Your task to perform on an android device: How much does the new iPad cost on eBay? Image 0: 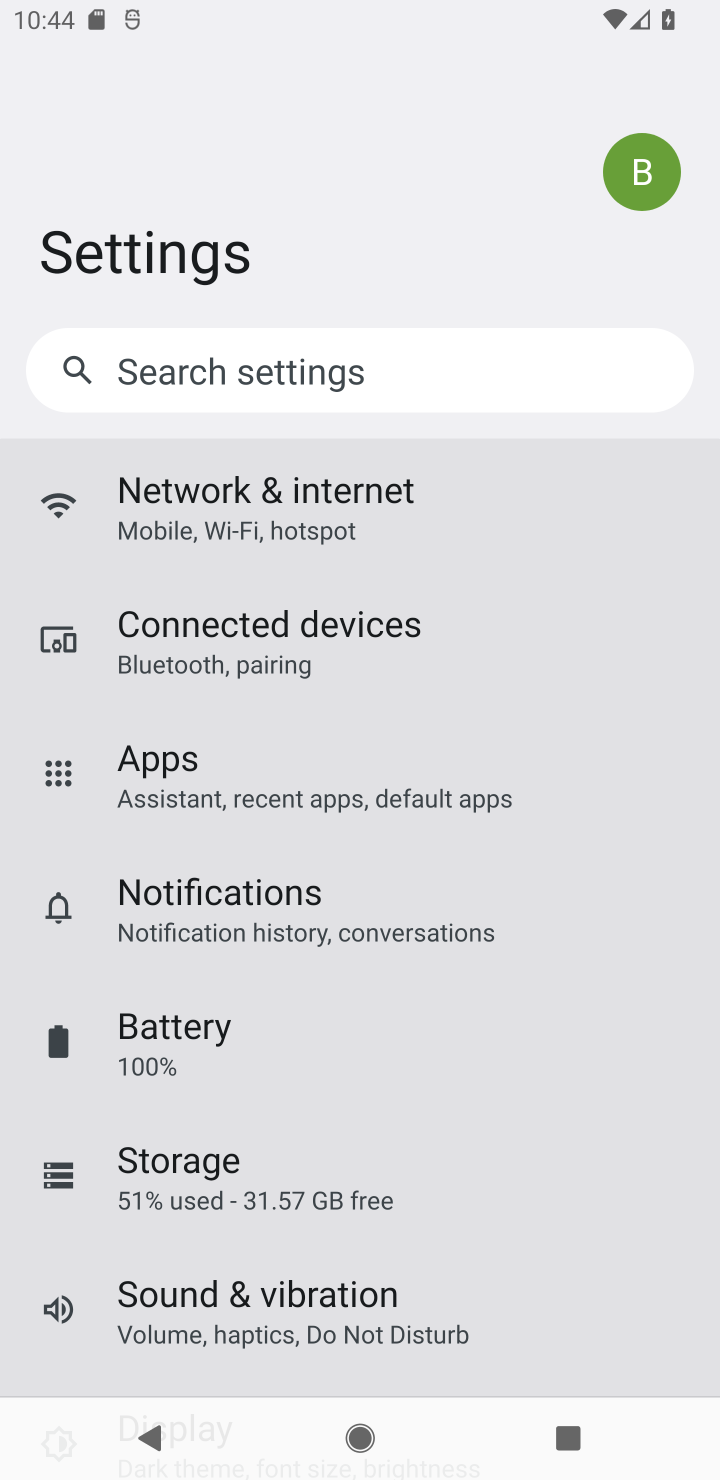
Step 0: press home button
Your task to perform on an android device: How much does the new iPad cost on eBay? Image 1: 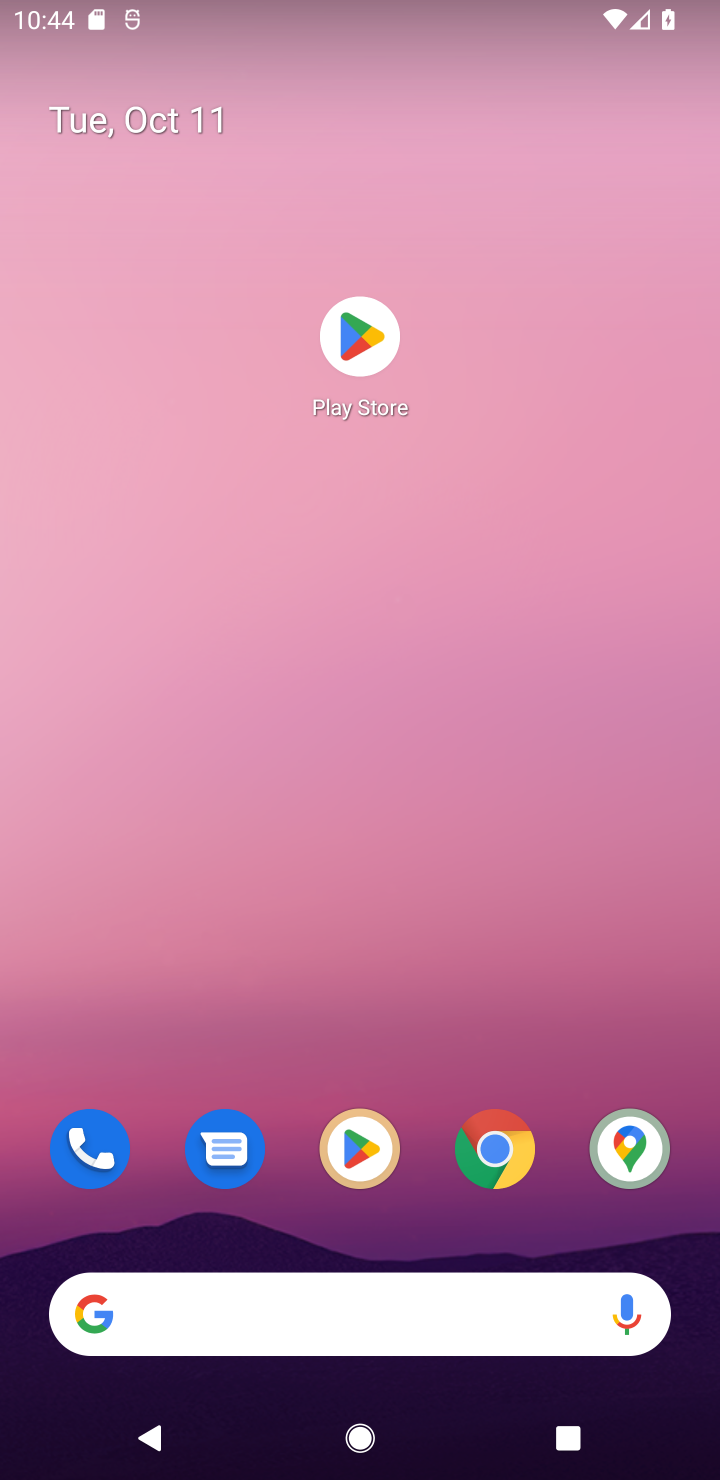
Step 1: drag from (417, 935) to (426, 435)
Your task to perform on an android device: How much does the new iPad cost on eBay? Image 2: 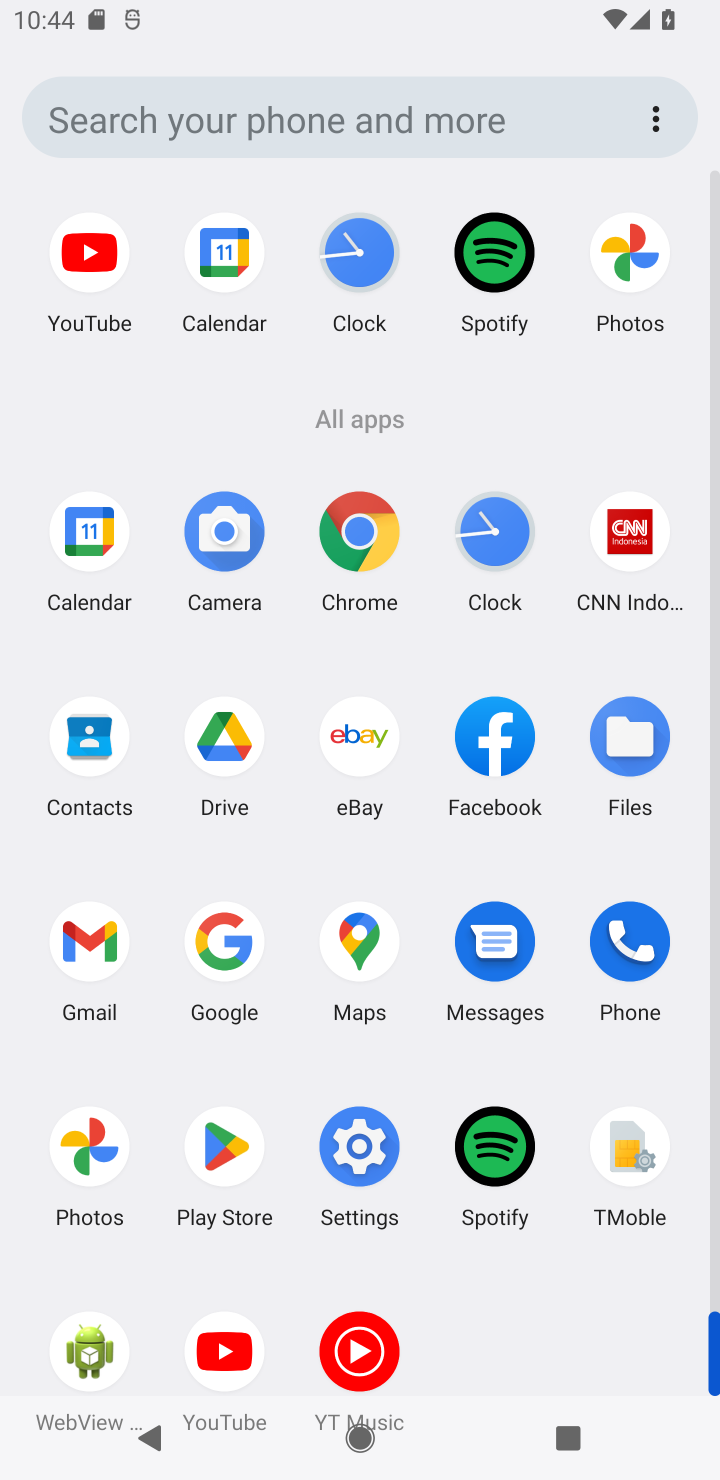
Step 2: click (235, 957)
Your task to perform on an android device: How much does the new iPad cost on eBay? Image 3: 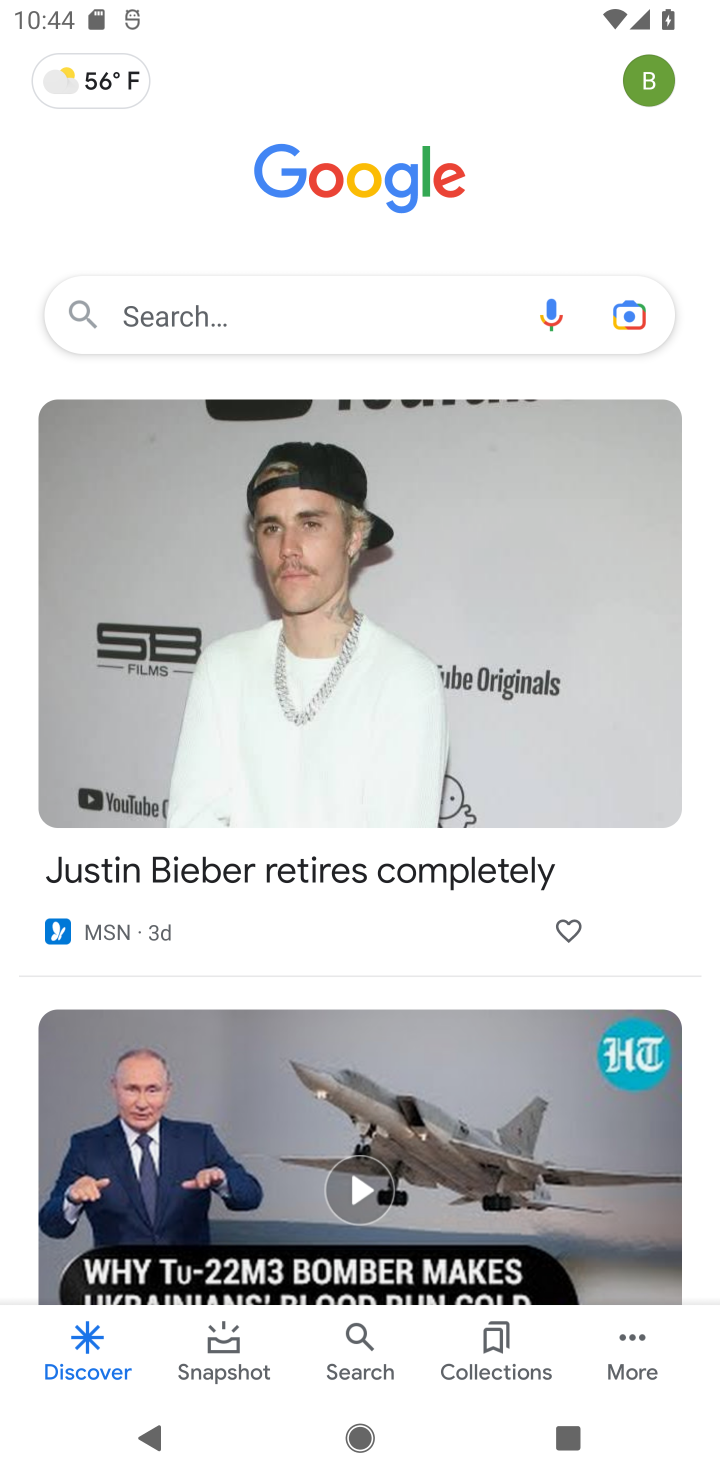
Step 3: click (182, 315)
Your task to perform on an android device: How much does the new iPad cost on eBay? Image 4: 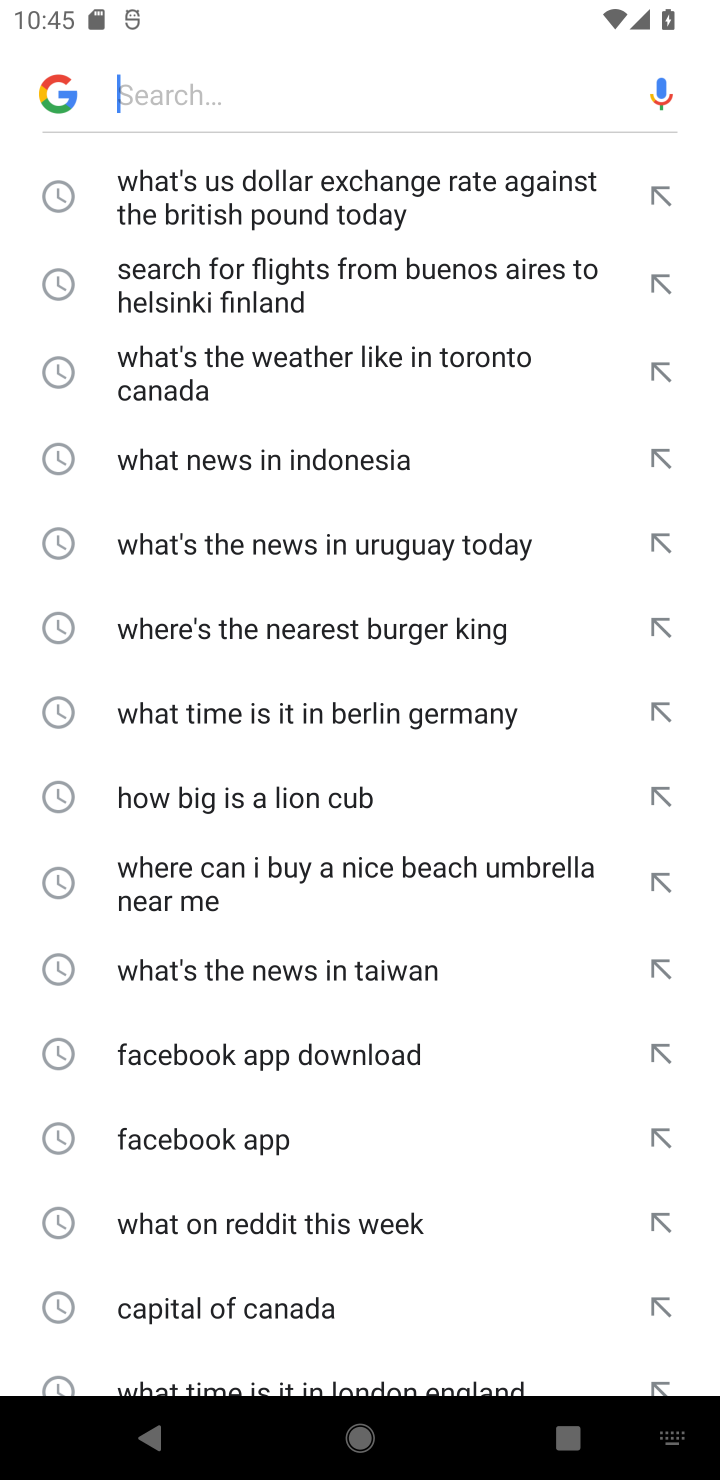
Step 4: type "How much does the new iPad cost on eBay?"
Your task to perform on an android device: How much does the new iPad cost on eBay? Image 5: 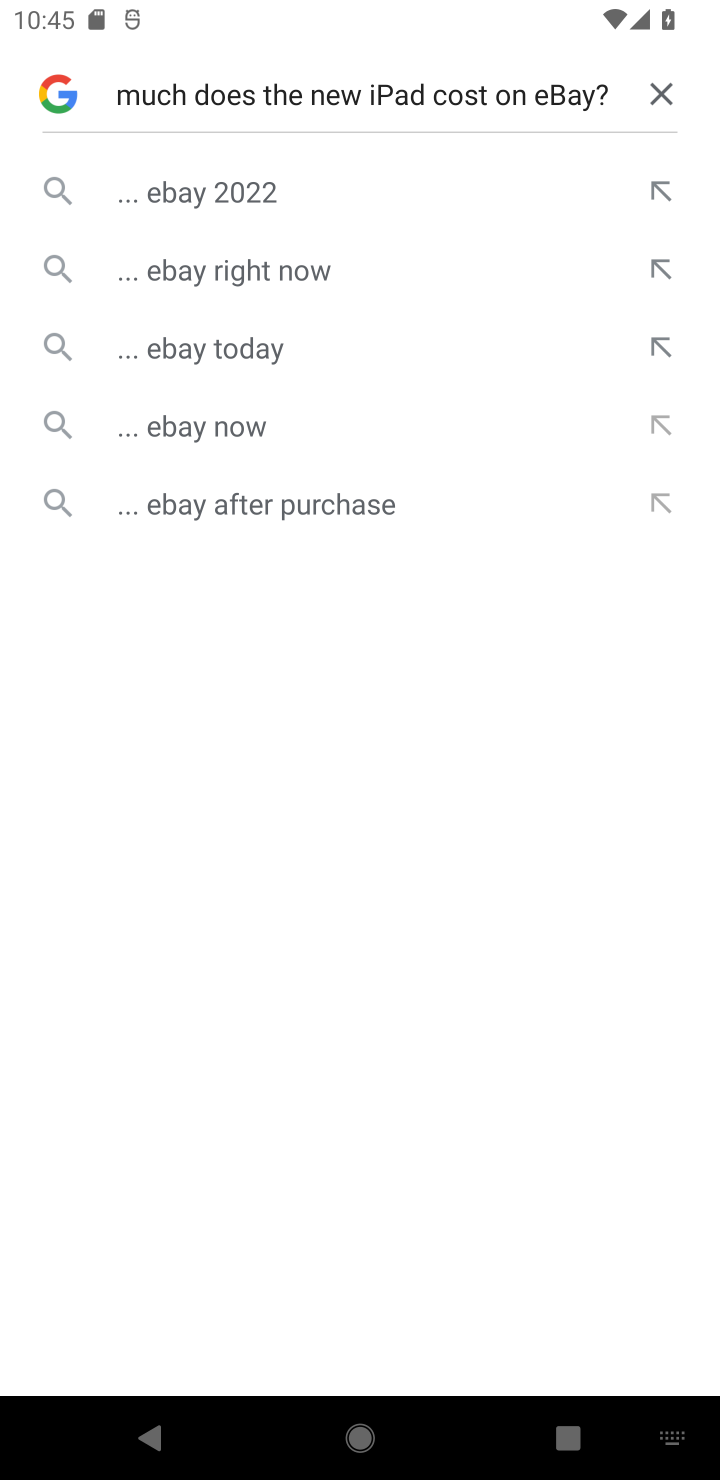
Step 5: click (211, 192)
Your task to perform on an android device: How much does the new iPad cost on eBay? Image 6: 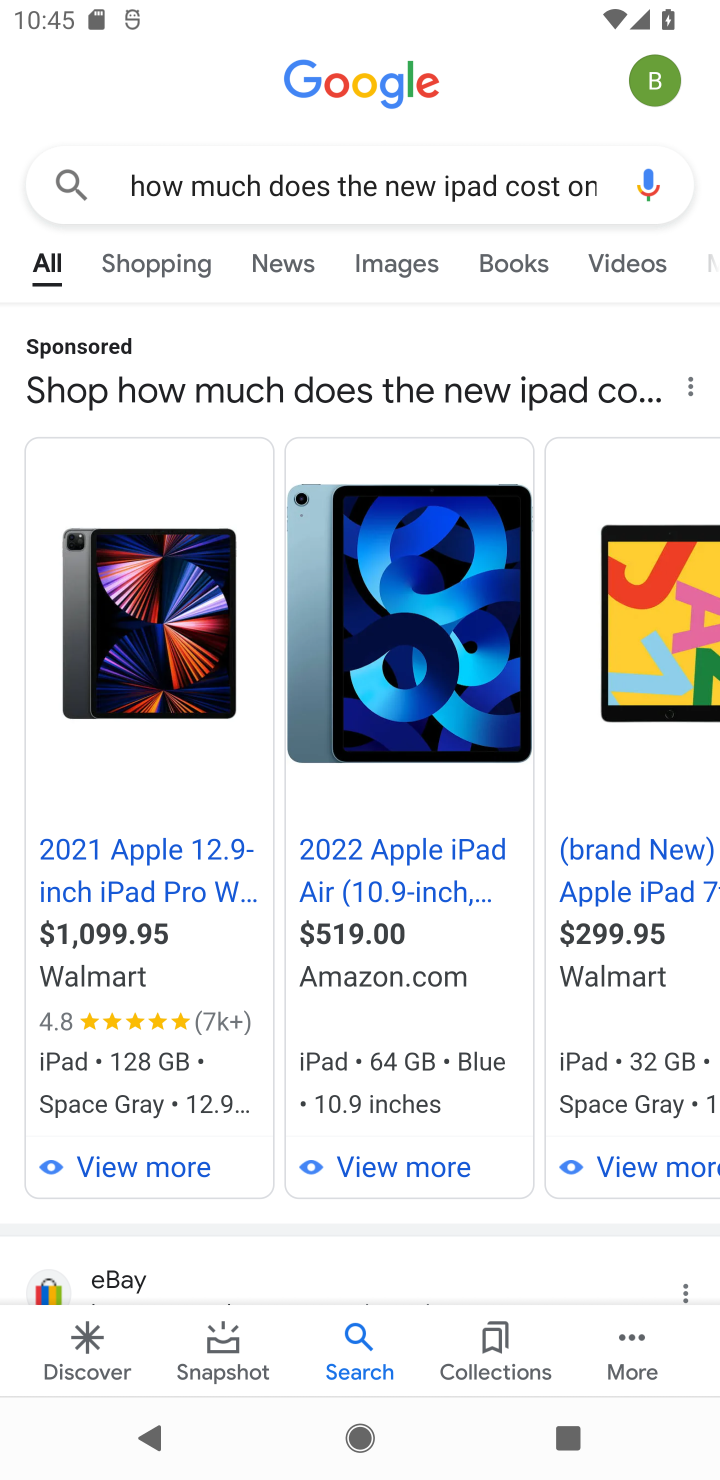
Step 6: task complete